Your task to perform on an android device: change alarm snooze length Image 0: 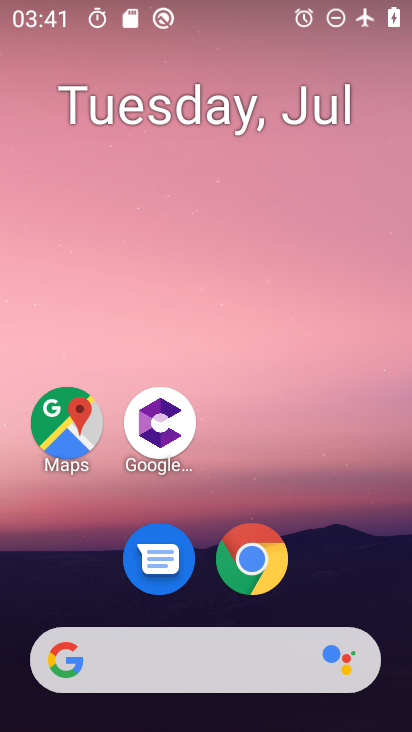
Step 0: drag from (351, 569) to (346, 137)
Your task to perform on an android device: change alarm snooze length Image 1: 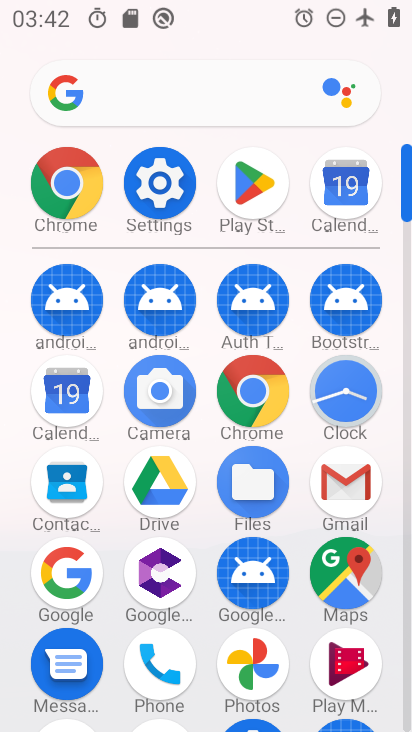
Step 1: click (345, 386)
Your task to perform on an android device: change alarm snooze length Image 2: 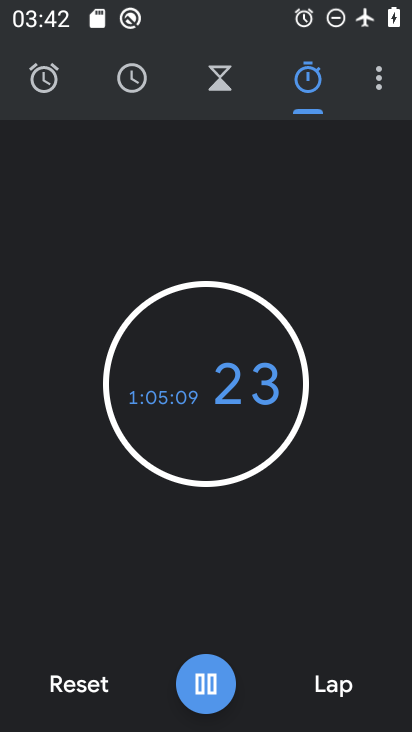
Step 2: click (381, 90)
Your task to perform on an android device: change alarm snooze length Image 3: 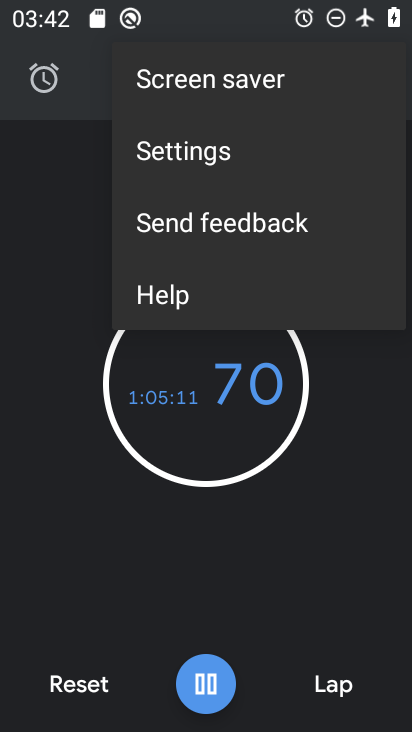
Step 3: click (303, 167)
Your task to perform on an android device: change alarm snooze length Image 4: 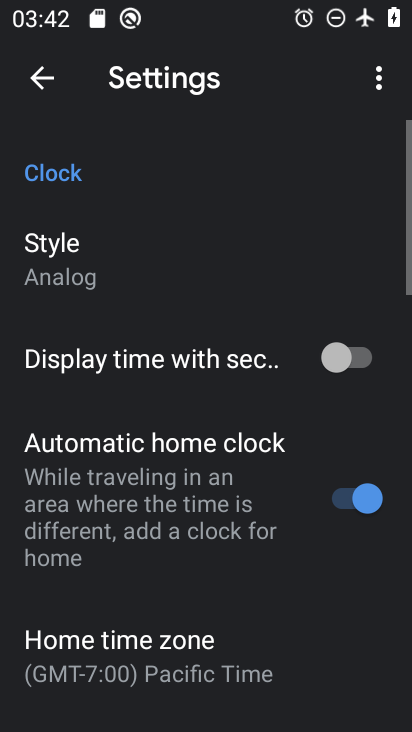
Step 4: drag from (298, 410) to (302, 316)
Your task to perform on an android device: change alarm snooze length Image 5: 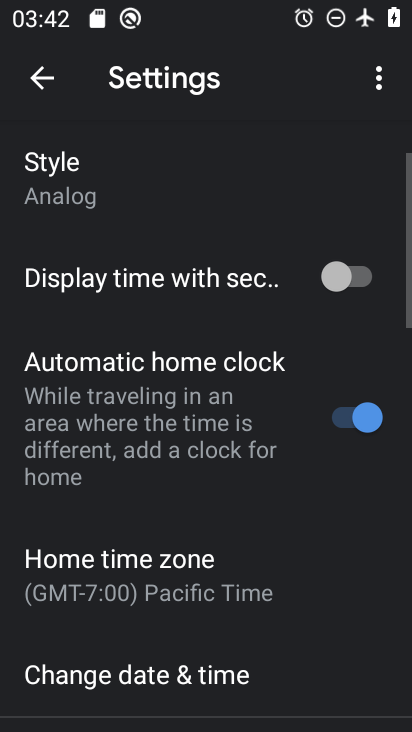
Step 5: drag from (292, 461) to (293, 373)
Your task to perform on an android device: change alarm snooze length Image 6: 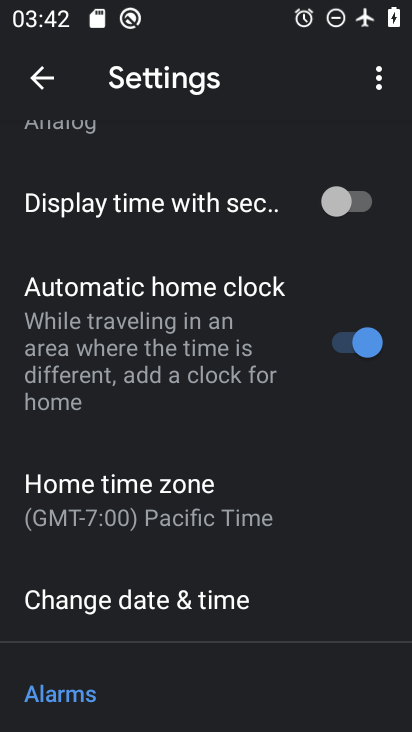
Step 6: drag from (283, 454) to (287, 350)
Your task to perform on an android device: change alarm snooze length Image 7: 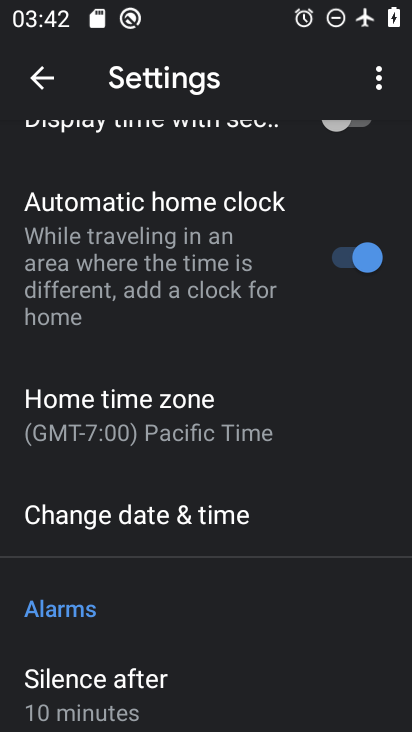
Step 7: drag from (296, 496) to (293, 366)
Your task to perform on an android device: change alarm snooze length Image 8: 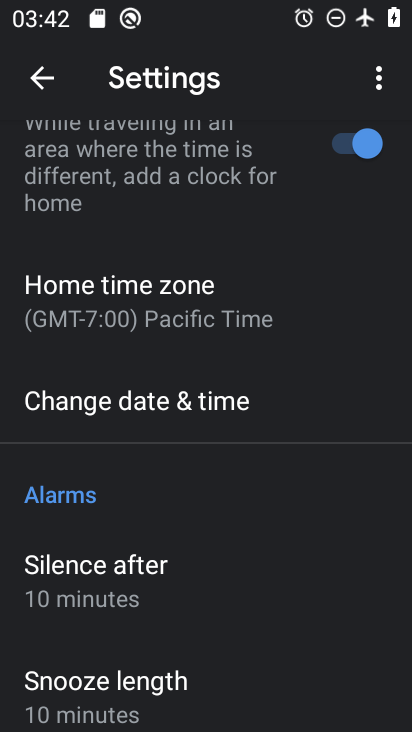
Step 8: drag from (277, 500) to (275, 324)
Your task to perform on an android device: change alarm snooze length Image 9: 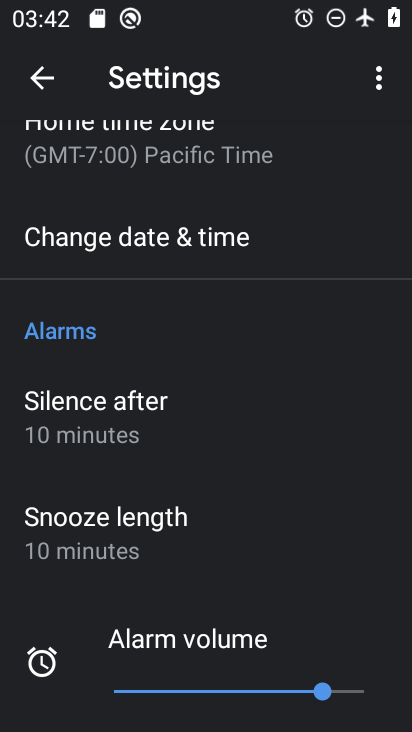
Step 9: drag from (258, 489) to (253, 317)
Your task to perform on an android device: change alarm snooze length Image 10: 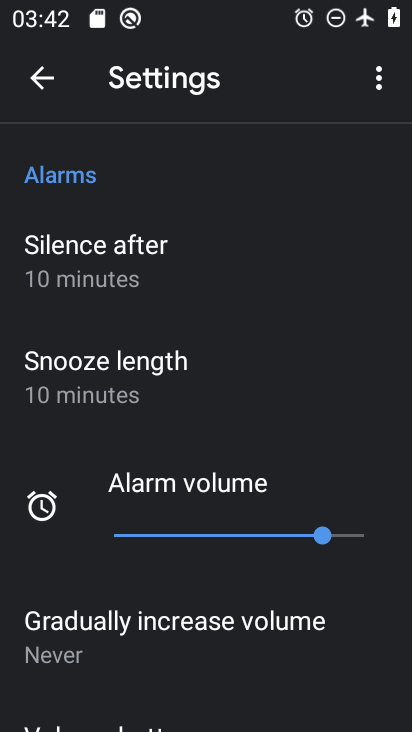
Step 10: click (236, 353)
Your task to perform on an android device: change alarm snooze length Image 11: 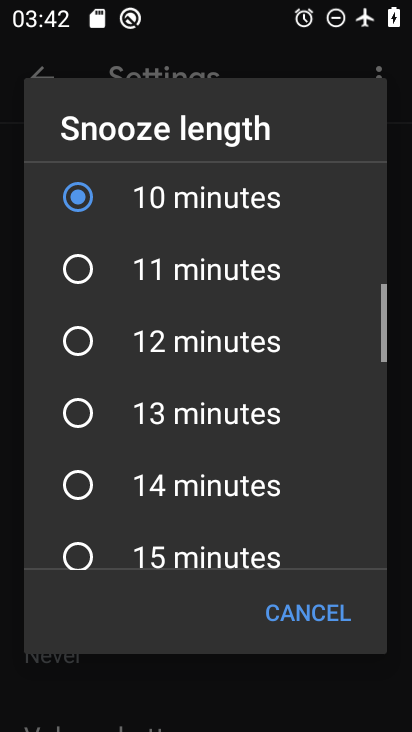
Step 11: click (236, 353)
Your task to perform on an android device: change alarm snooze length Image 12: 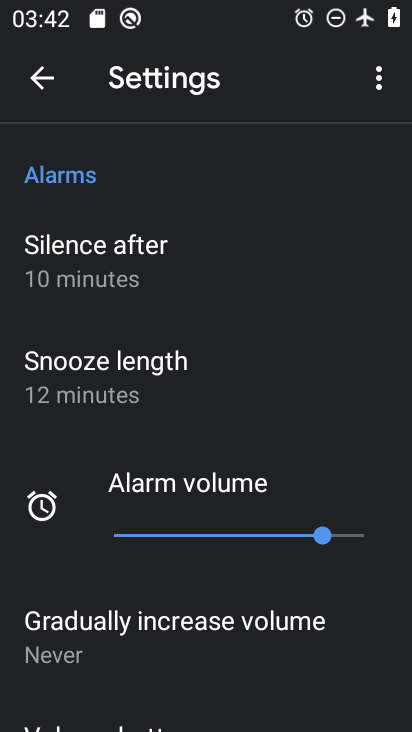
Step 12: task complete